Your task to perform on an android device: Open Google Image 0: 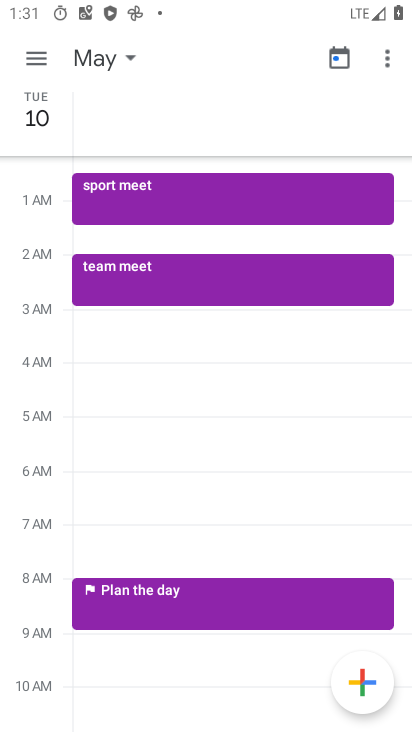
Step 0: press home button
Your task to perform on an android device: Open Google Image 1: 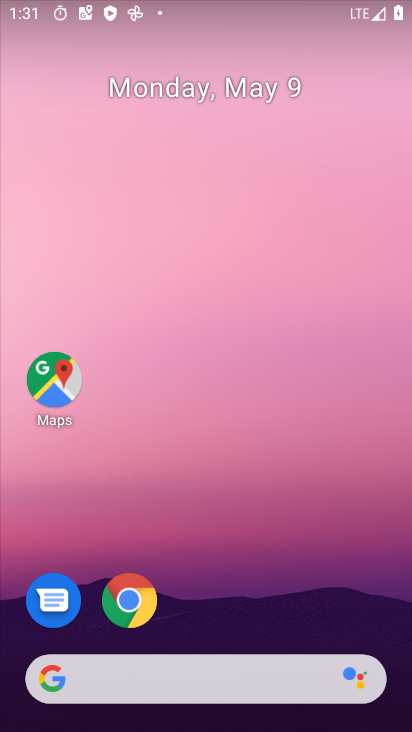
Step 1: drag from (248, 611) to (233, 208)
Your task to perform on an android device: Open Google Image 2: 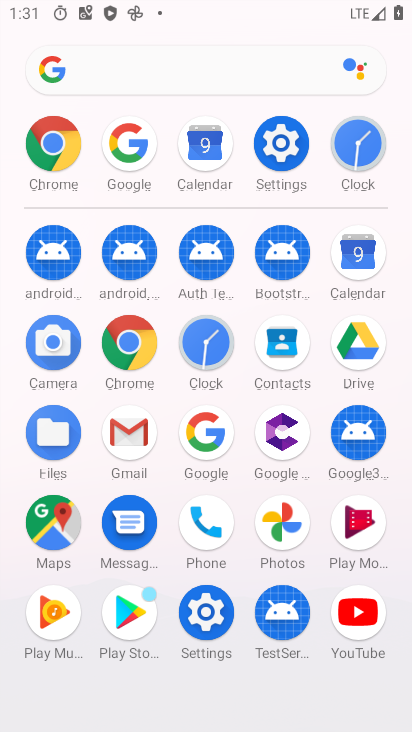
Step 2: click (207, 438)
Your task to perform on an android device: Open Google Image 3: 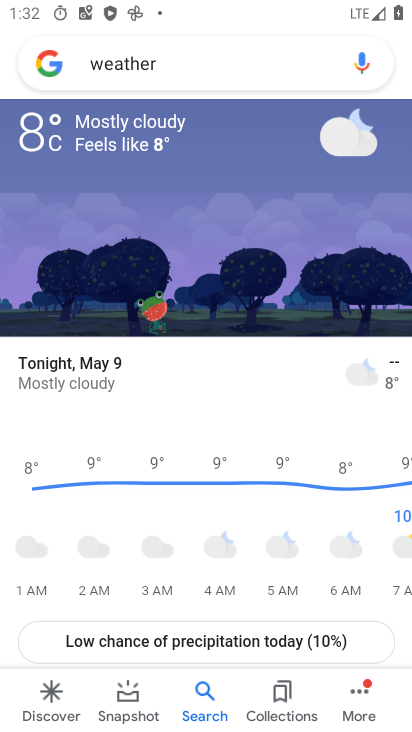
Step 3: task complete